Your task to perform on an android device: check android version Image 0: 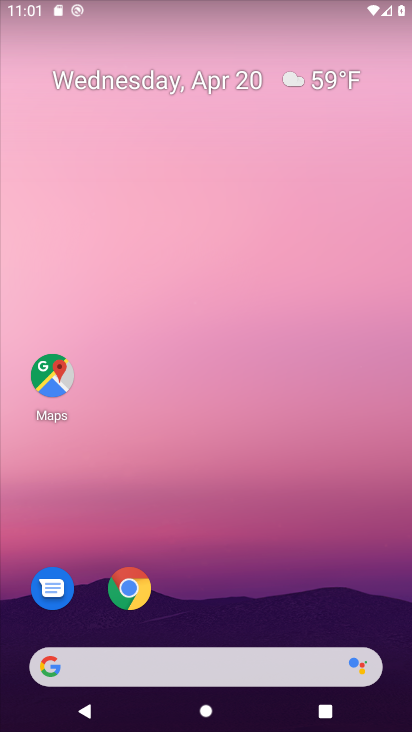
Step 0: drag from (387, 639) to (292, 126)
Your task to perform on an android device: check android version Image 1: 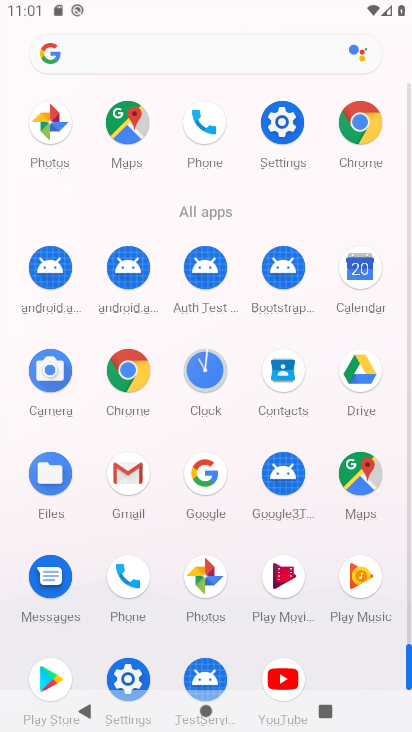
Step 1: drag from (409, 622) to (404, 580)
Your task to perform on an android device: check android version Image 2: 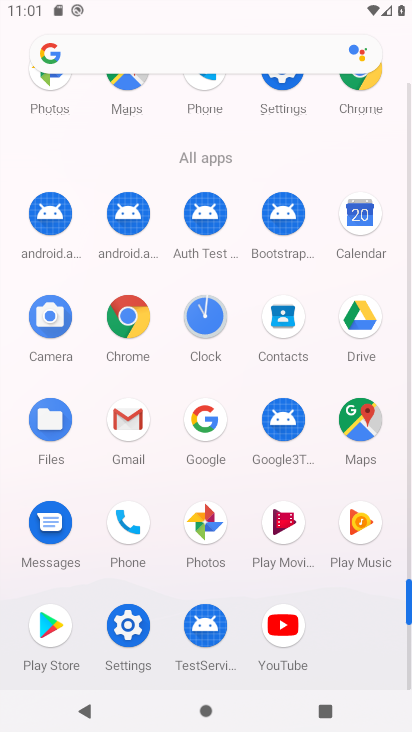
Step 2: click (130, 624)
Your task to perform on an android device: check android version Image 3: 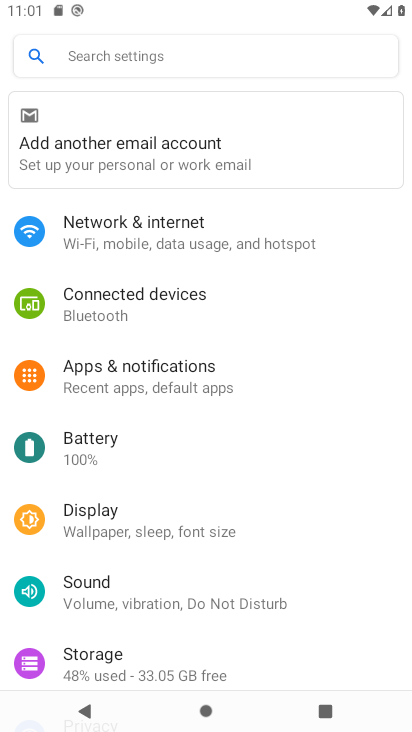
Step 3: drag from (273, 598) to (272, 326)
Your task to perform on an android device: check android version Image 4: 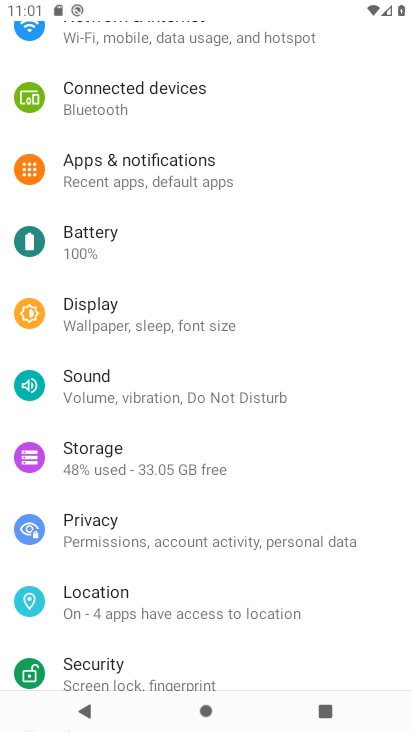
Step 4: drag from (327, 499) to (330, 210)
Your task to perform on an android device: check android version Image 5: 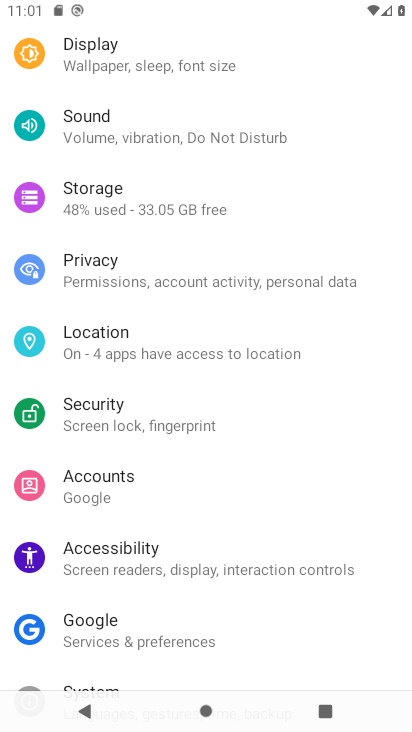
Step 5: drag from (290, 483) to (296, 204)
Your task to perform on an android device: check android version Image 6: 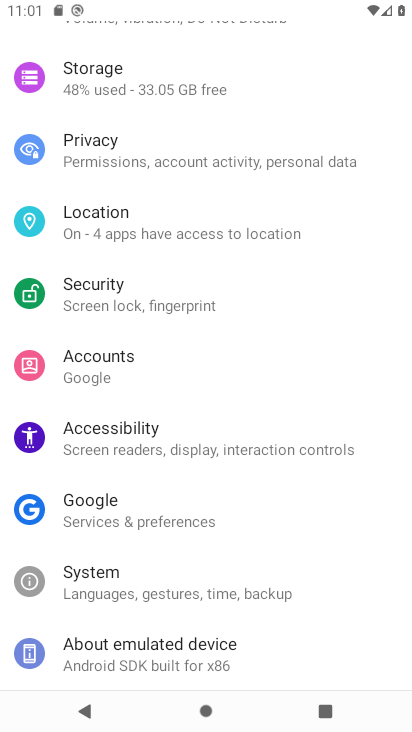
Step 6: click (113, 651)
Your task to perform on an android device: check android version Image 7: 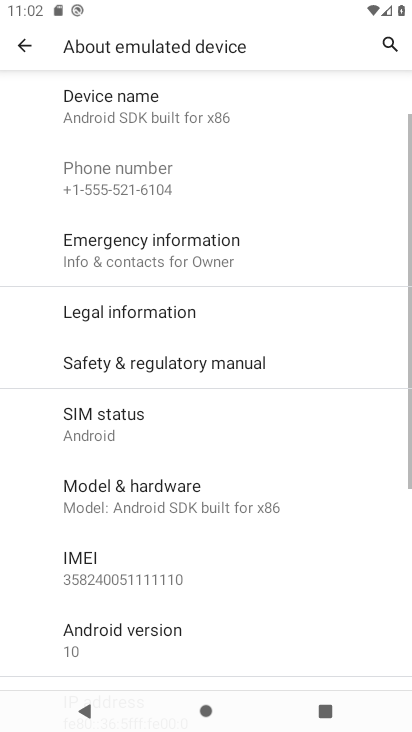
Step 7: click (100, 636)
Your task to perform on an android device: check android version Image 8: 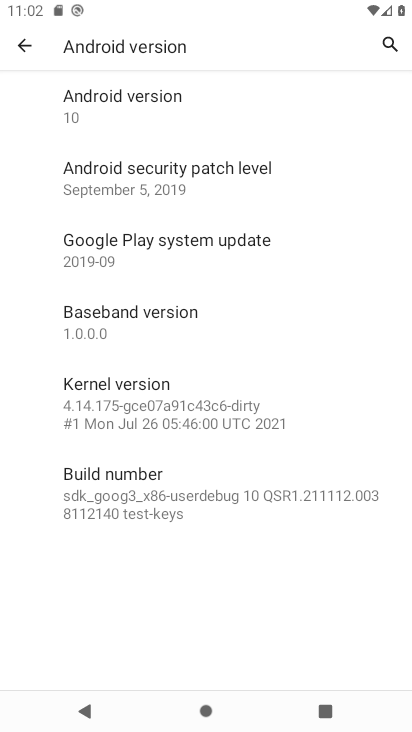
Step 8: task complete